Your task to perform on an android device: delete the emails in spam in the gmail app Image 0: 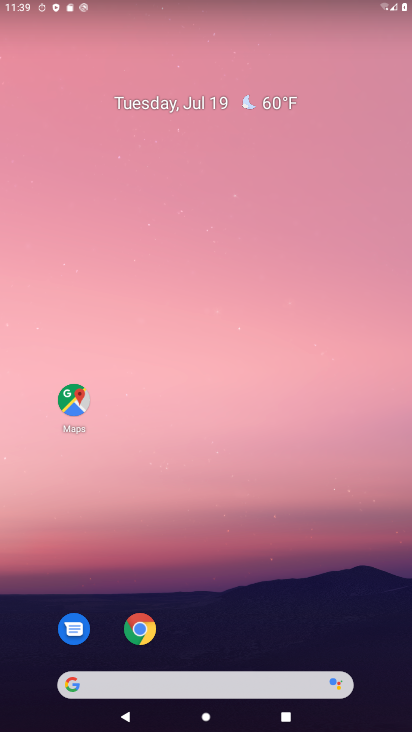
Step 0: click (252, 0)
Your task to perform on an android device: delete the emails in spam in the gmail app Image 1: 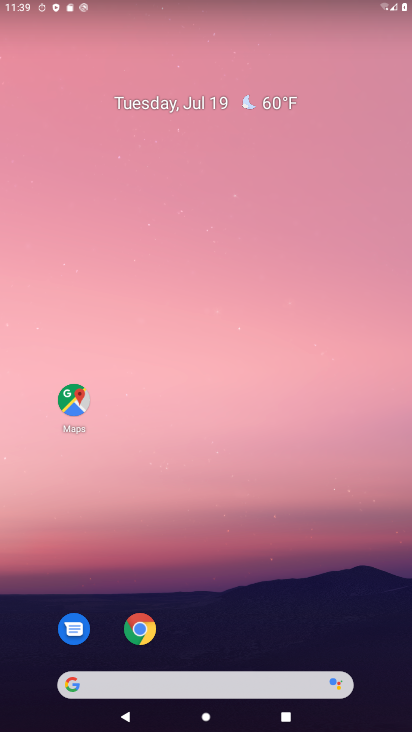
Step 1: drag from (219, 588) to (267, 80)
Your task to perform on an android device: delete the emails in spam in the gmail app Image 2: 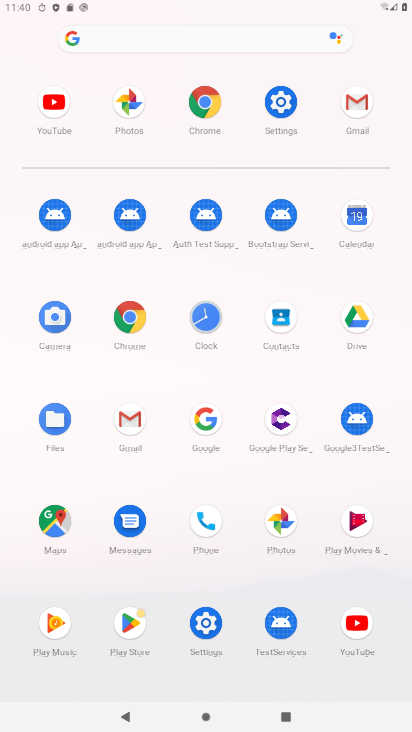
Step 2: click (365, 104)
Your task to perform on an android device: delete the emails in spam in the gmail app Image 3: 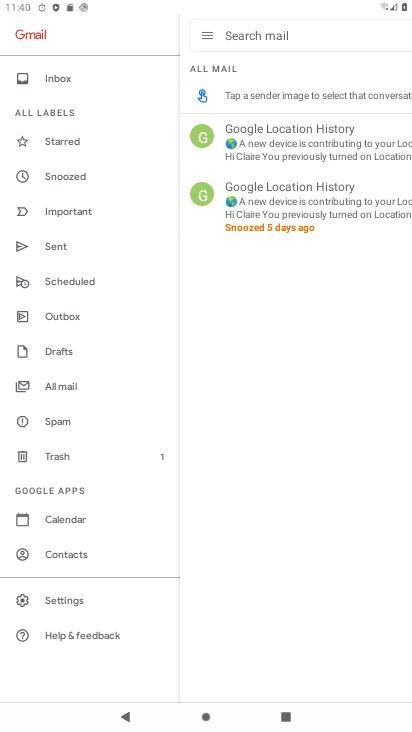
Step 3: click (78, 428)
Your task to perform on an android device: delete the emails in spam in the gmail app Image 4: 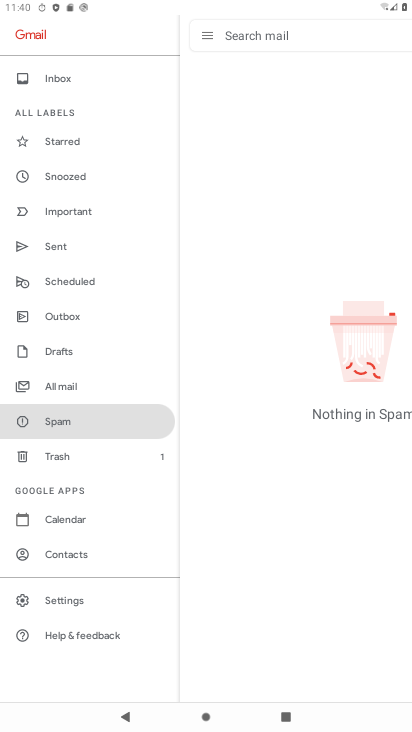
Step 4: task complete